Your task to perform on an android device: Turn on the flashlight Image 0: 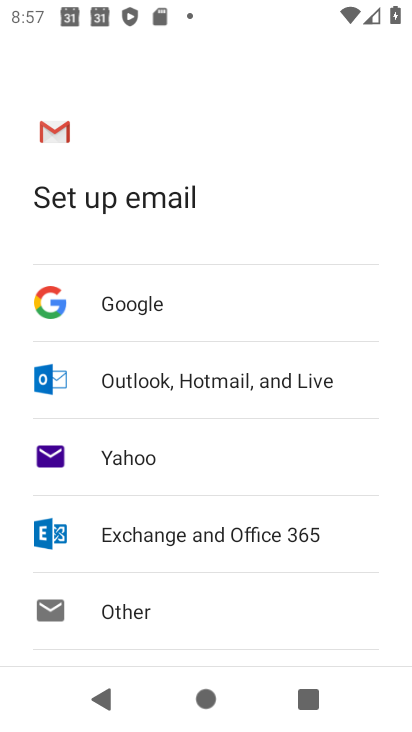
Step 0: press back button
Your task to perform on an android device: Turn on the flashlight Image 1: 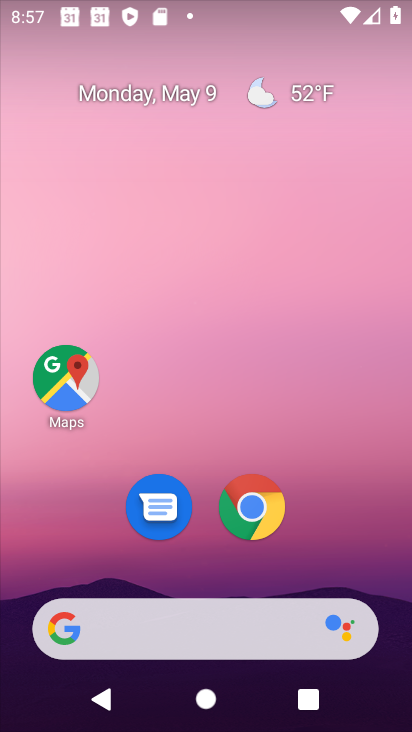
Step 1: drag from (326, 549) to (259, 114)
Your task to perform on an android device: Turn on the flashlight Image 2: 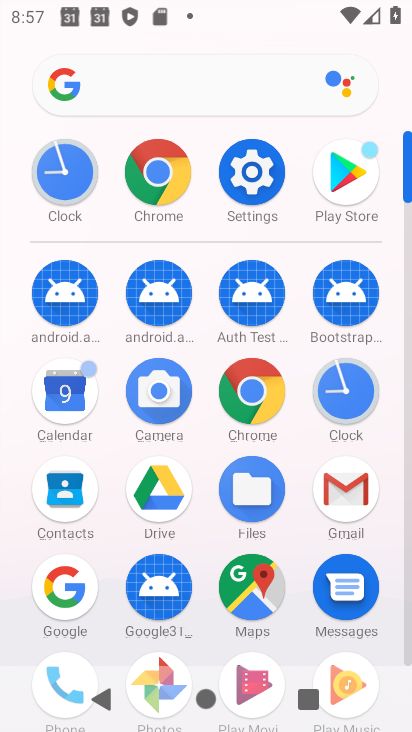
Step 2: click (250, 173)
Your task to perform on an android device: Turn on the flashlight Image 3: 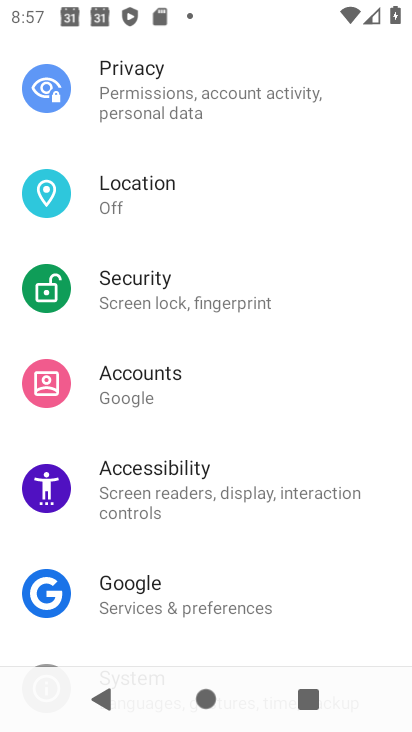
Step 3: drag from (208, 219) to (241, 411)
Your task to perform on an android device: Turn on the flashlight Image 4: 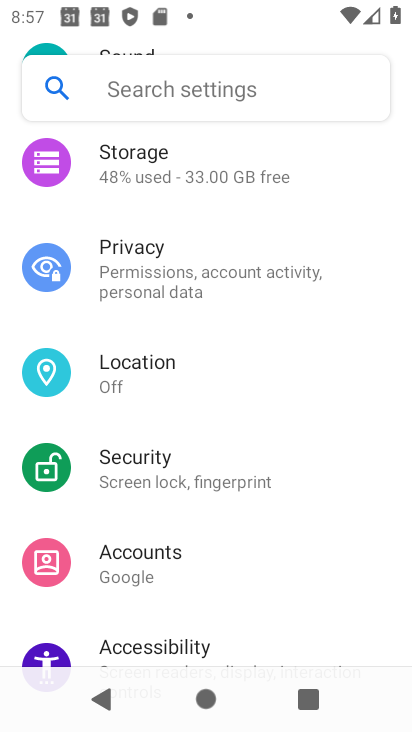
Step 4: drag from (202, 224) to (219, 376)
Your task to perform on an android device: Turn on the flashlight Image 5: 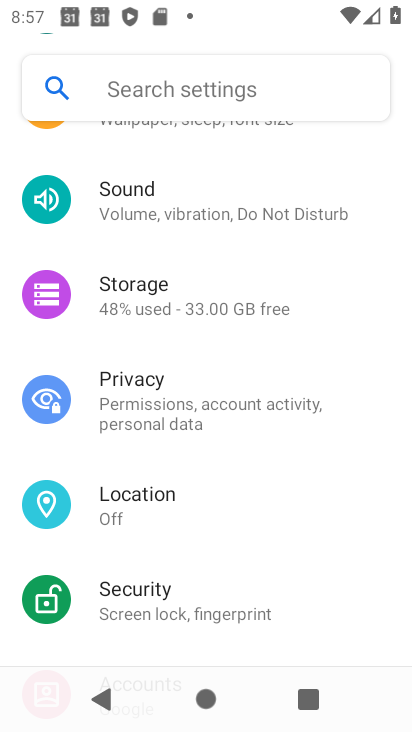
Step 5: drag from (190, 238) to (214, 346)
Your task to perform on an android device: Turn on the flashlight Image 6: 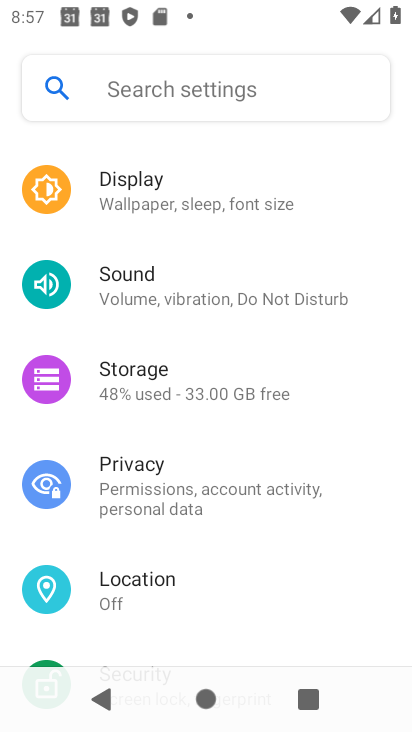
Step 6: click (208, 210)
Your task to perform on an android device: Turn on the flashlight Image 7: 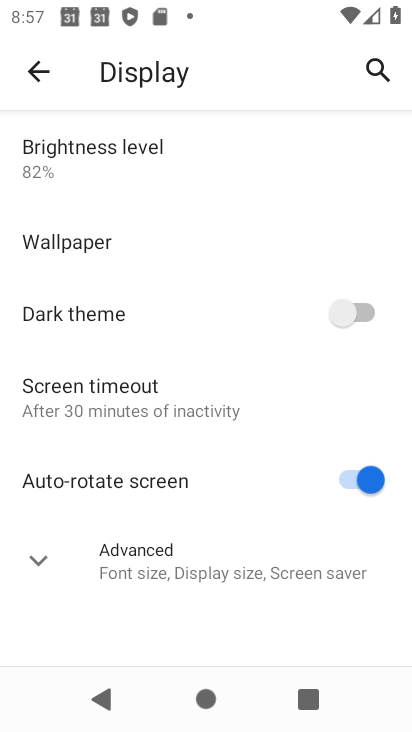
Step 7: click (263, 84)
Your task to perform on an android device: Turn on the flashlight Image 8: 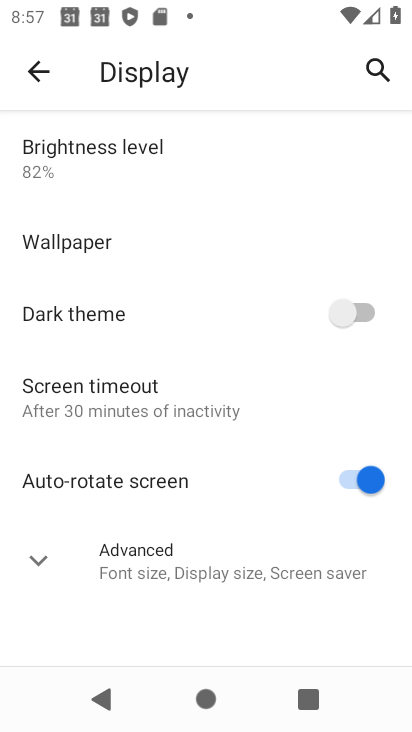
Step 8: click (373, 59)
Your task to perform on an android device: Turn on the flashlight Image 9: 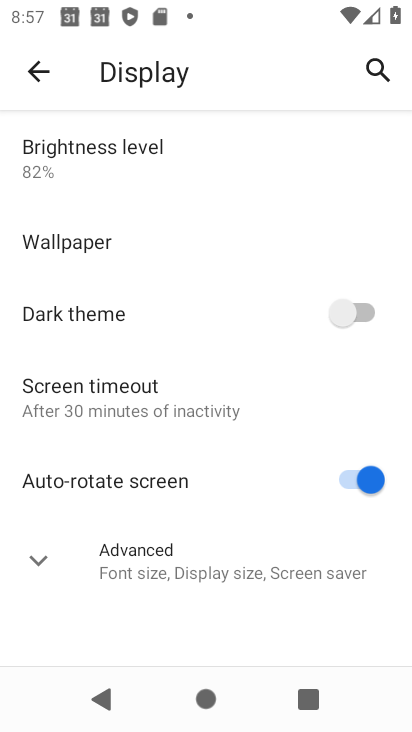
Step 9: click (377, 73)
Your task to perform on an android device: Turn on the flashlight Image 10: 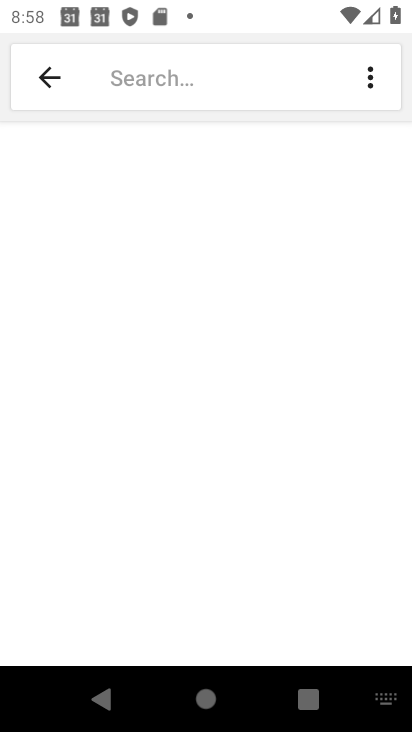
Step 10: click (284, 78)
Your task to perform on an android device: Turn on the flashlight Image 11: 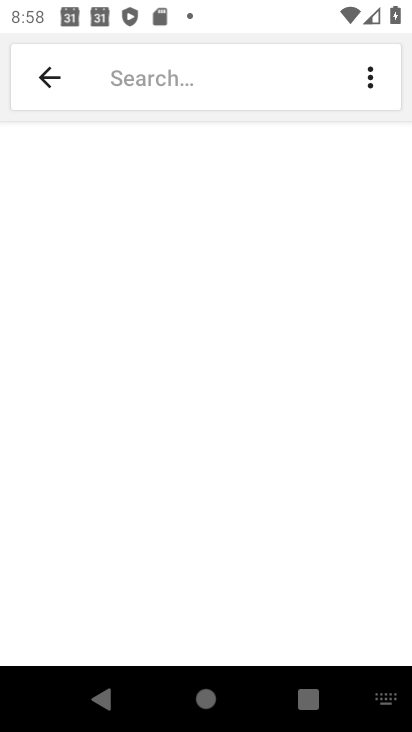
Step 11: type "flashlight"
Your task to perform on an android device: Turn on the flashlight Image 12: 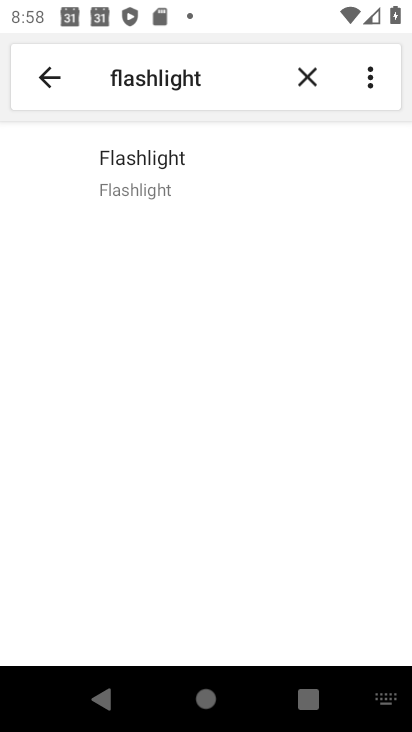
Step 12: click (105, 153)
Your task to perform on an android device: Turn on the flashlight Image 13: 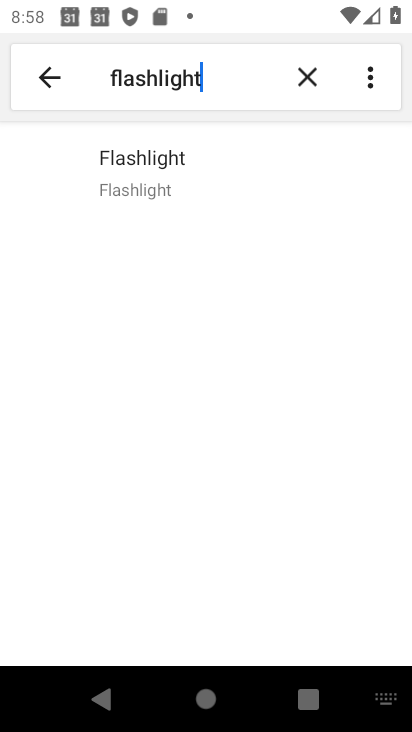
Step 13: click (124, 161)
Your task to perform on an android device: Turn on the flashlight Image 14: 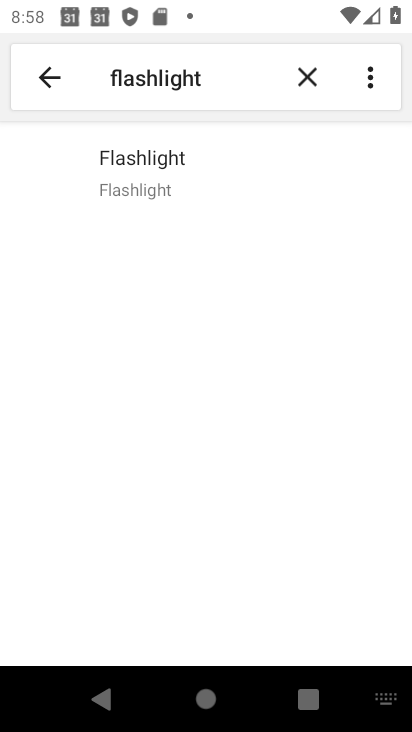
Step 14: click (311, 75)
Your task to perform on an android device: Turn on the flashlight Image 15: 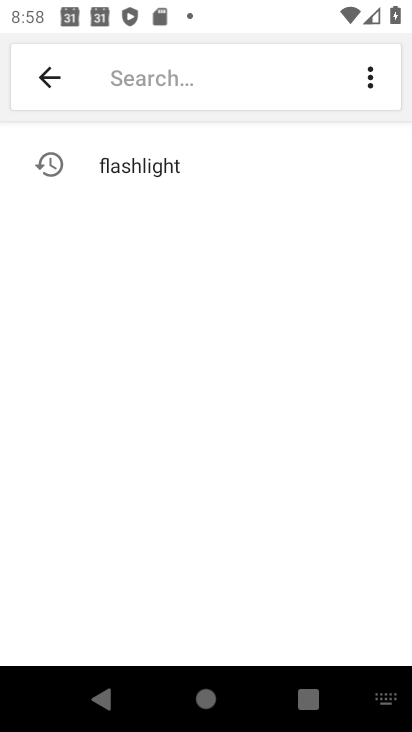
Step 15: click (169, 163)
Your task to perform on an android device: Turn on the flashlight Image 16: 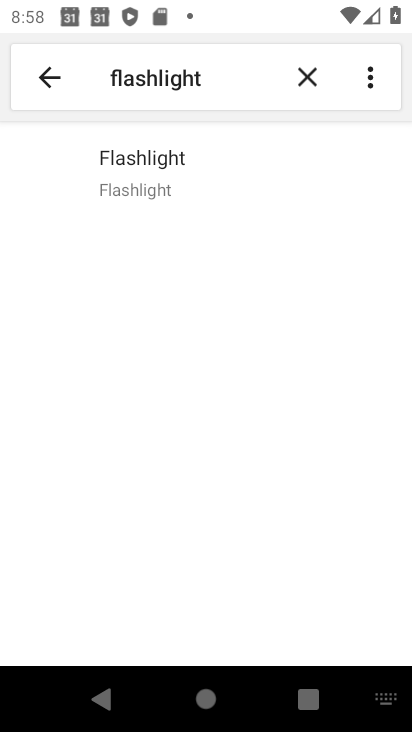
Step 16: click (169, 163)
Your task to perform on an android device: Turn on the flashlight Image 17: 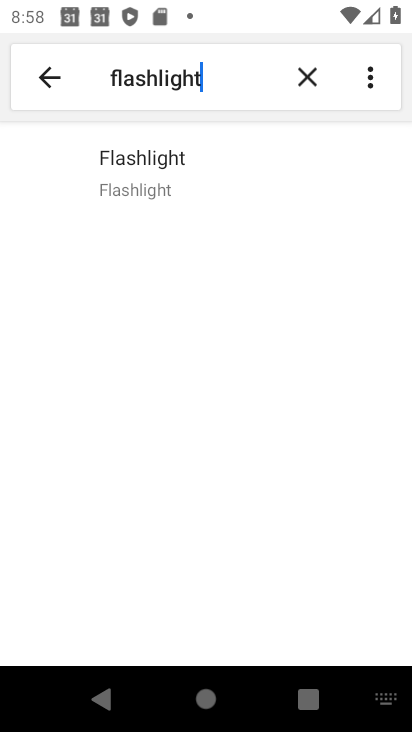
Step 17: task complete